Your task to perform on an android device: install app "Google Find My Device" Image 0: 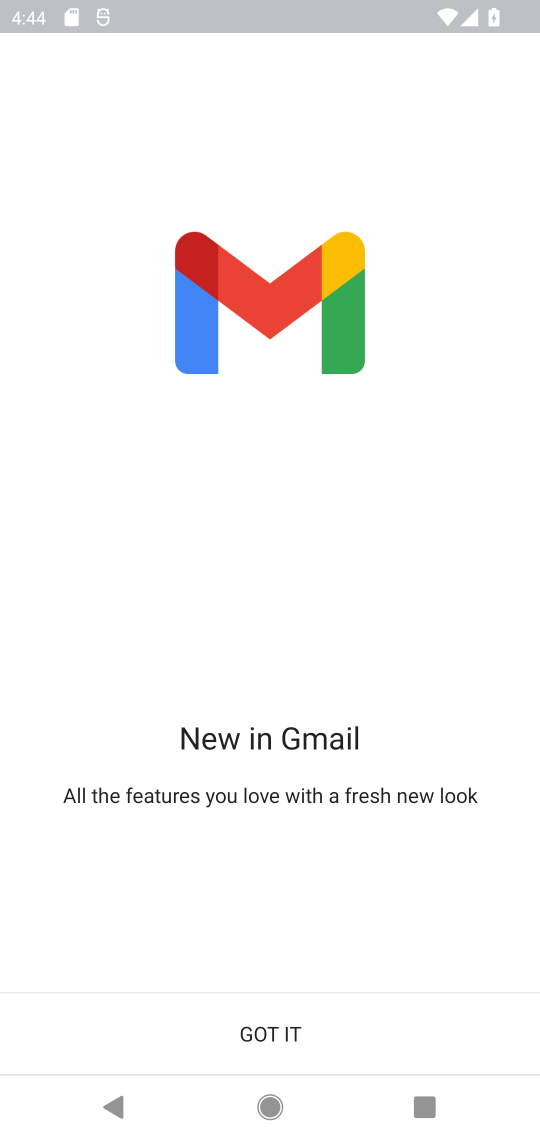
Step 0: press home button
Your task to perform on an android device: install app "Google Find My Device" Image 1: 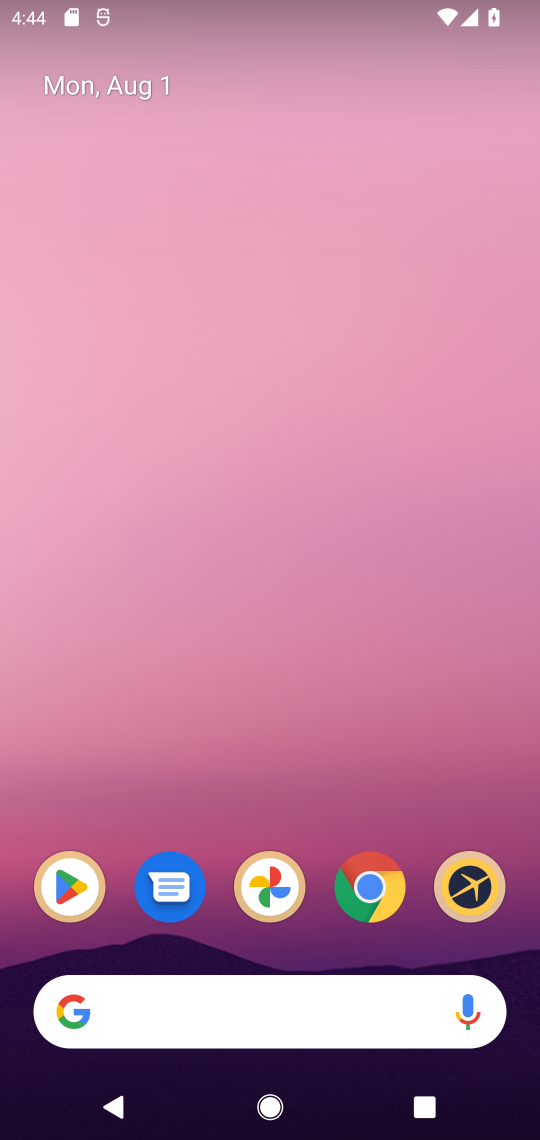
Step 1: click (334, 957)
Your task to perform on an android device: install app "Google Find My Device" Image 2: 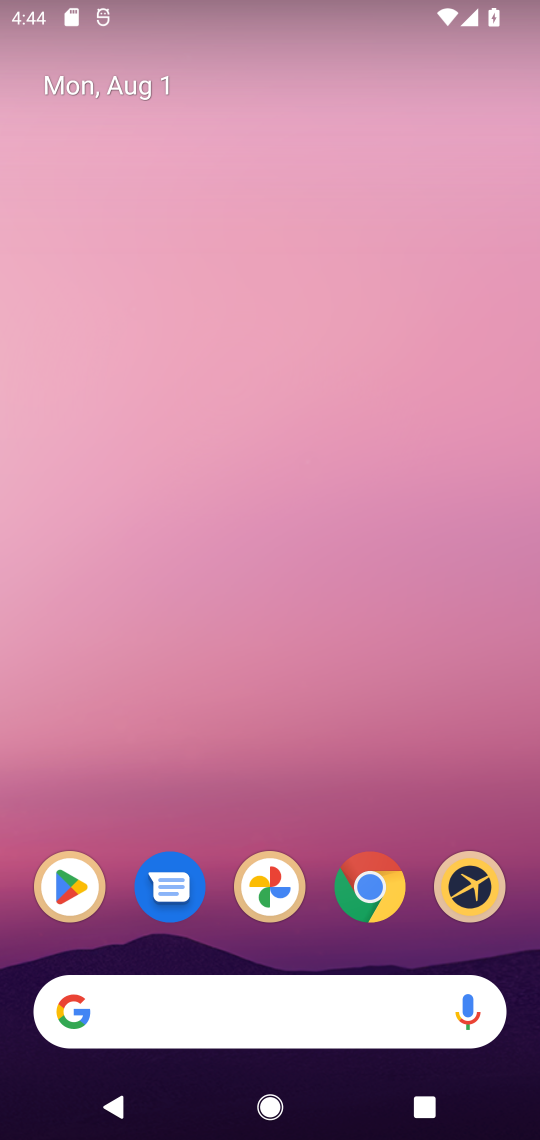
Step 2: drag from (334, 957) to (201, 89)
Your task to perform on an android device: install app "Google Find My Device" Image 3: 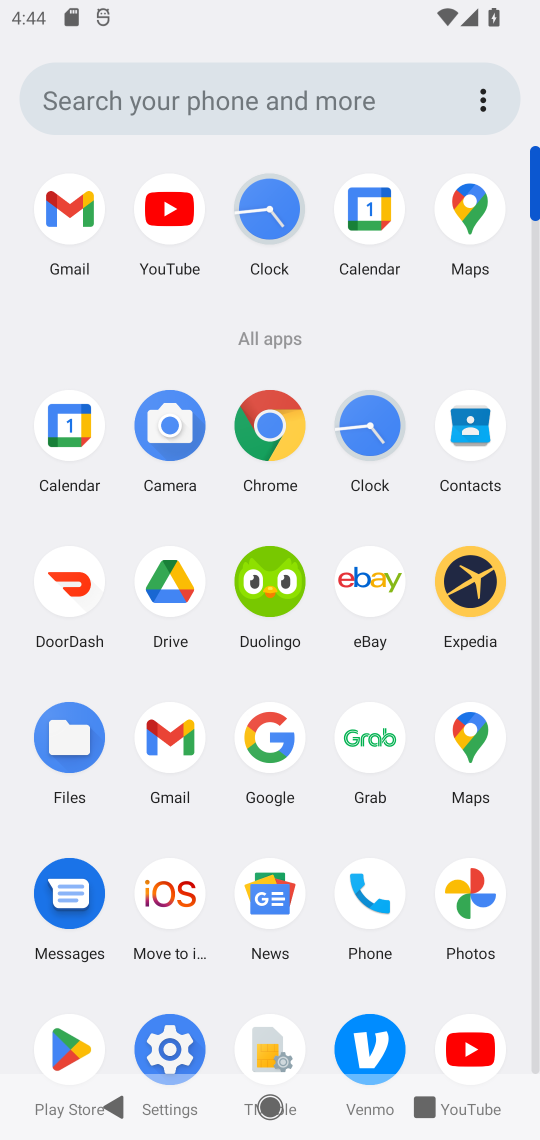
Step 3: click (50, 1057)
Your task to perform on an android device: install app "Google Find My Device" Image 4: 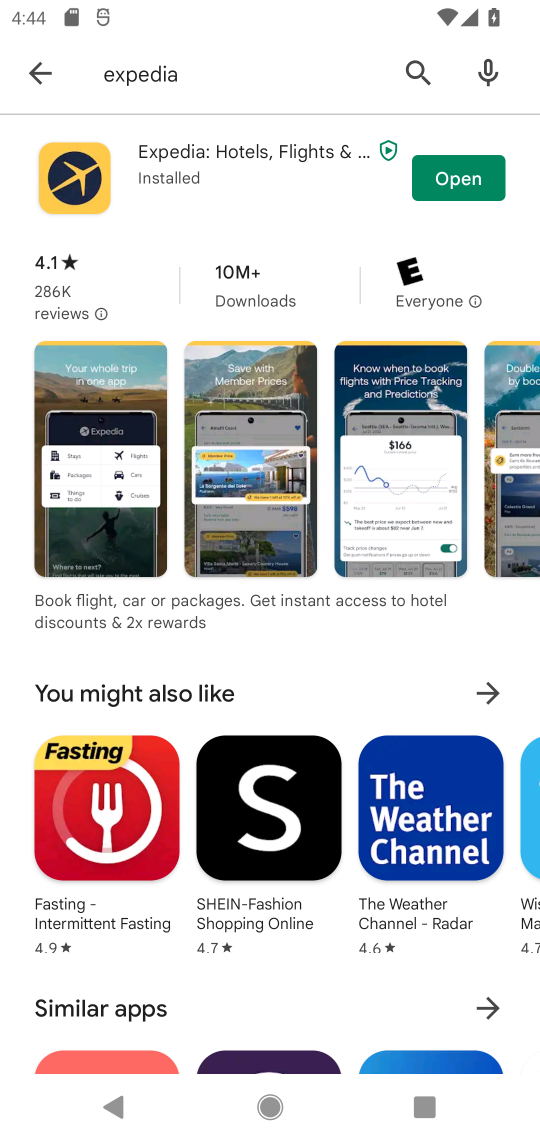
Step 4: click (15, 75)
Your task to perform on an android device: install app "Google Find My Device" Image 5: 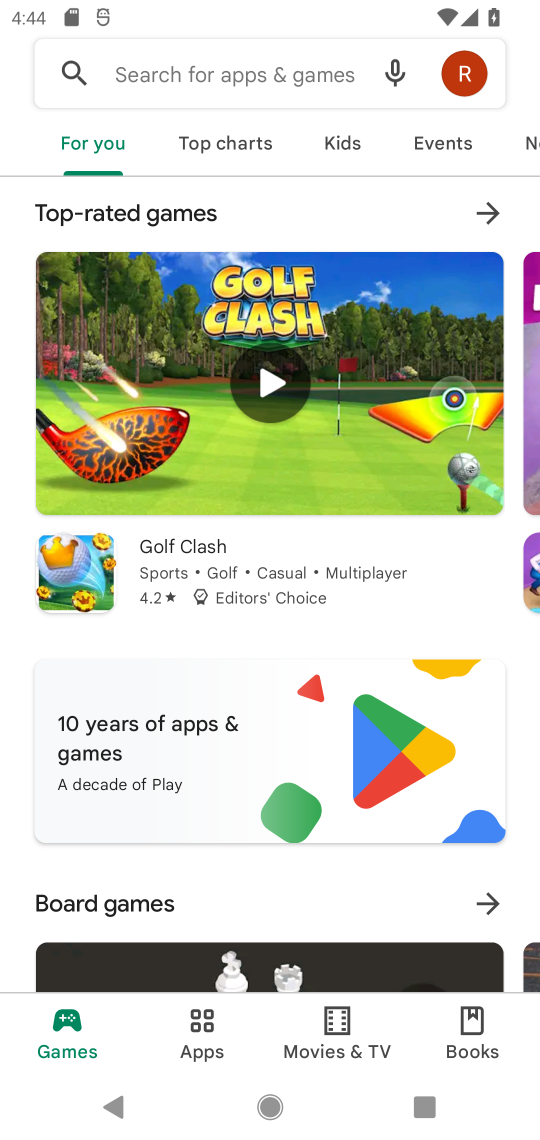
Step 5: click (156, 67)
Your task to perform on an android device: install app "Google Find My Device" Image 6: 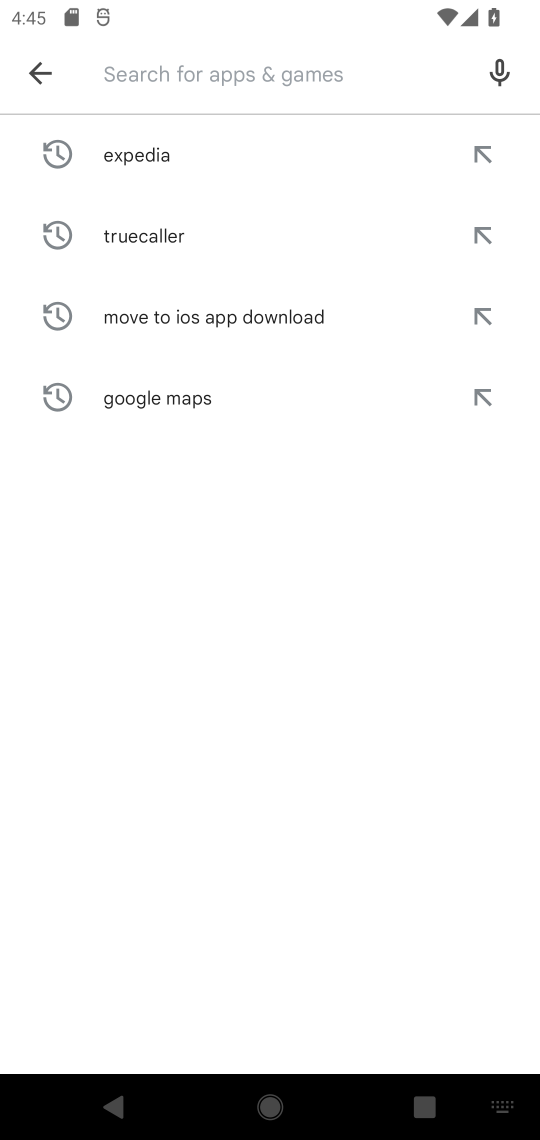
Step 6: type "Google Find My Device"
Your task to perform on an android device: install app "Google Find My Device" Image 7: 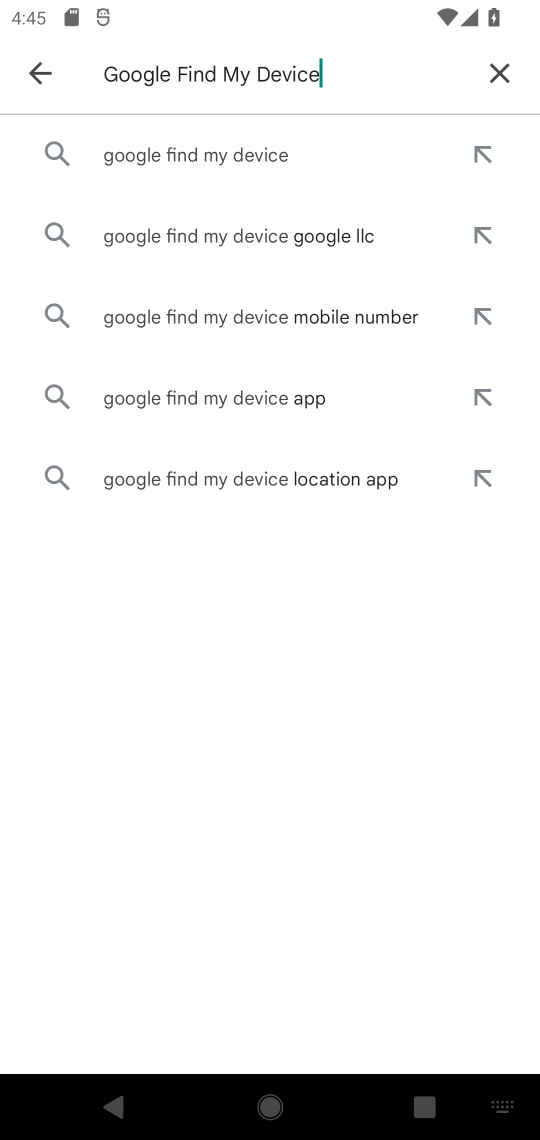
Step 7: click (116, 184)
Your task to perform on an android device: install app "Google Find My Device" Image 8: 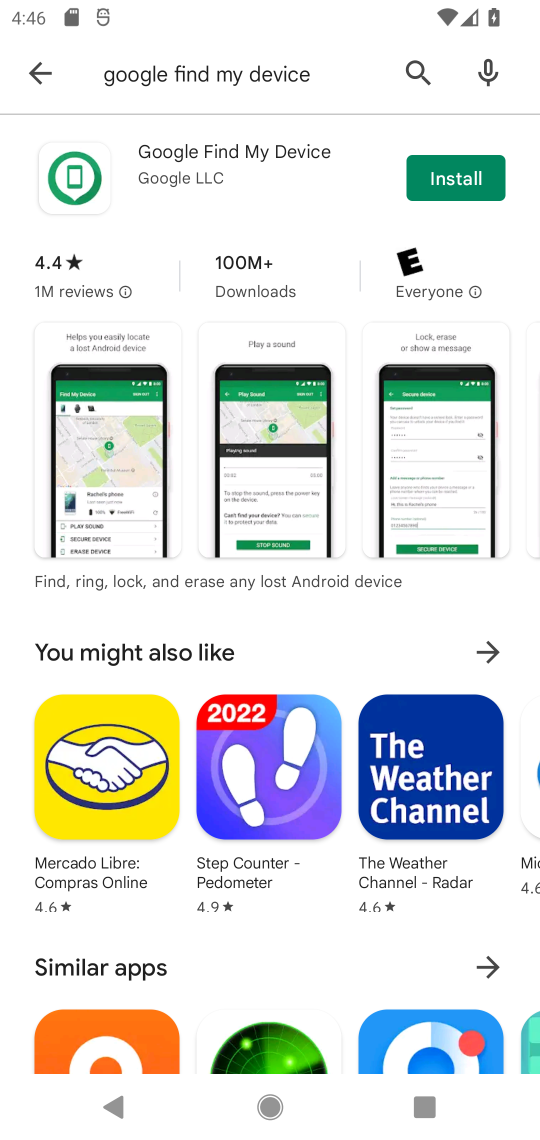
Step 8: click (455, 179)
Your task to perform on an android device: install app "Google Find My Device" Image 9: 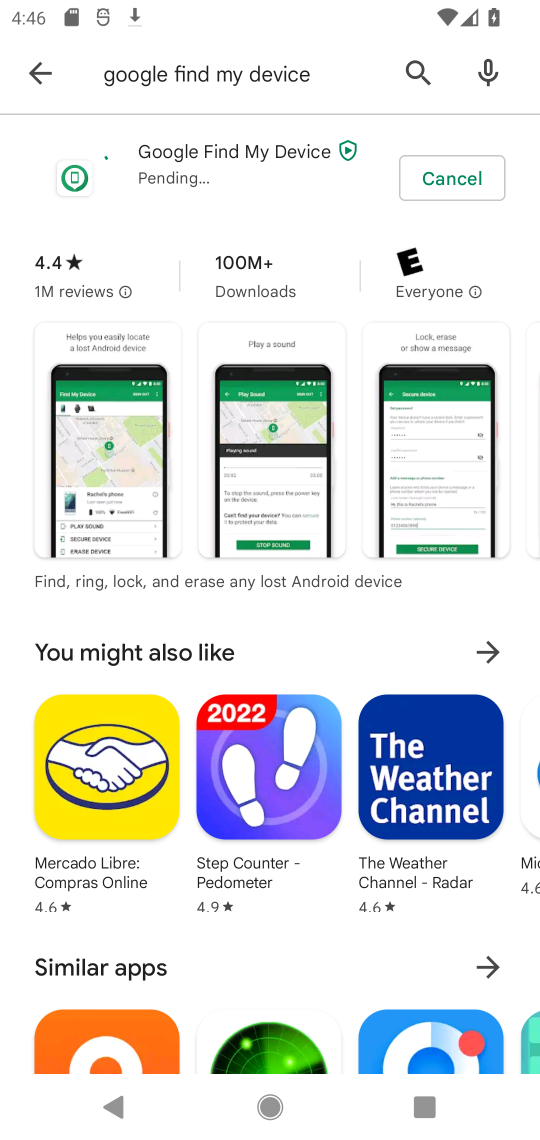
Step 9: task complete